Your task to perform on an android device: change the clock display to analog Image 0: 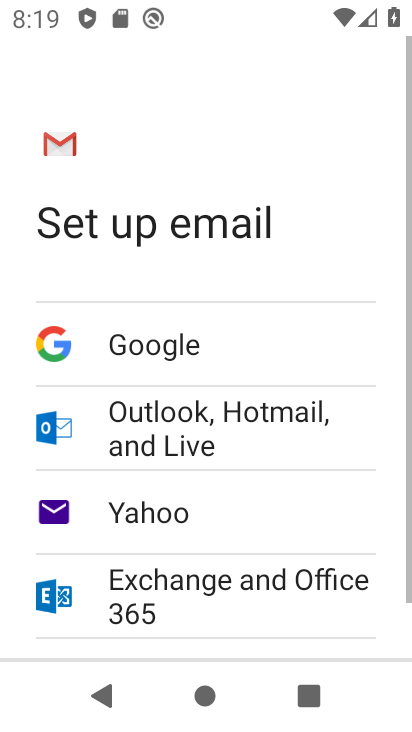
Step 0: press back button
Your task to perform on an android device: change the clock display to analog Image 1: 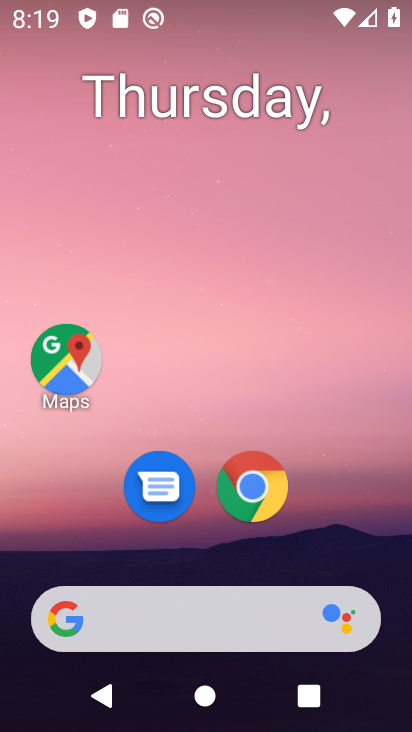
Step 1: drag from (131, 532) to (199, 4)
Your task to perform on an android device: change the clock display to analog Image 2: 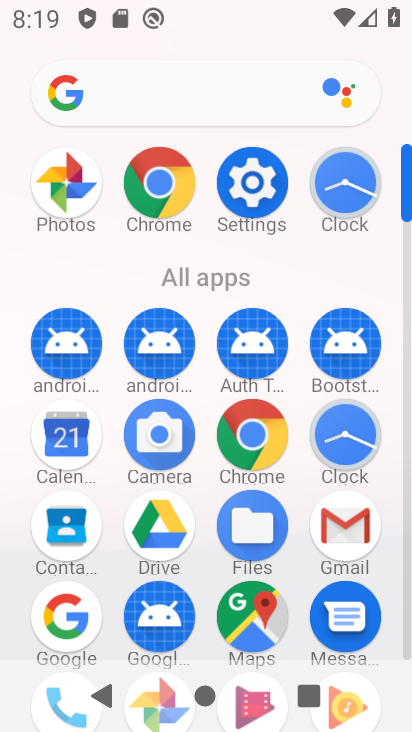
Step 2: click (352, 193)
Your task to perform on an android device: change the clock display to analog Image 3: 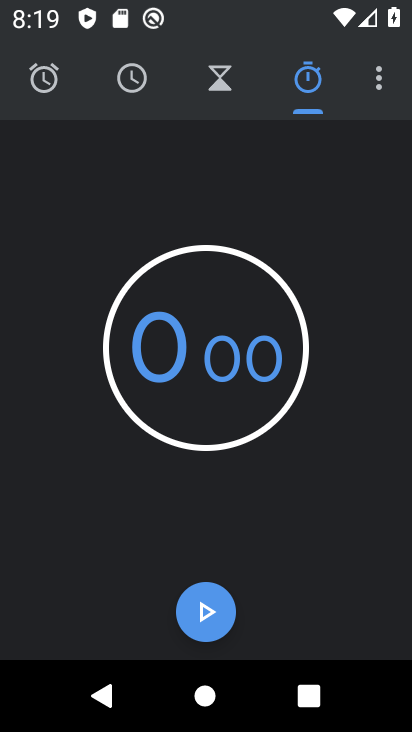
Step 3: click (381, 78)
Your task to perform on an android device: change the clock display to analog Image 4: 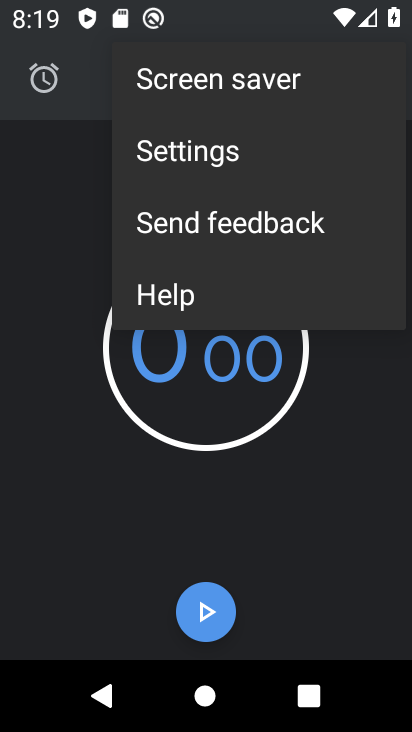
Step 4: click (186, 156)
Your task to perform on an android device: change the clock display to analog Image 5: 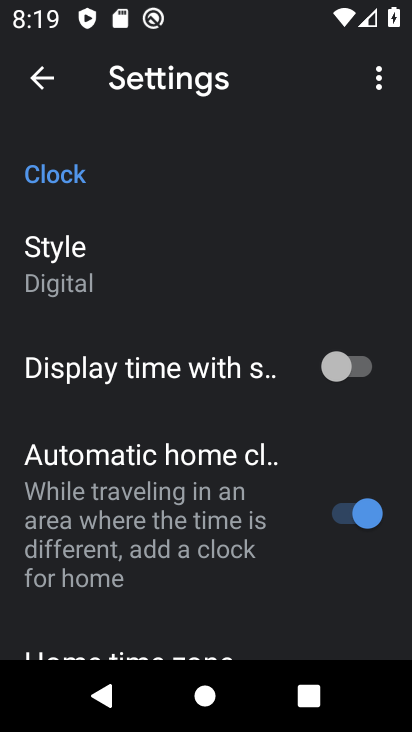
Step 5: click (60, 272)
Your task to perform on an android device: change the clock display to analog Image 6: 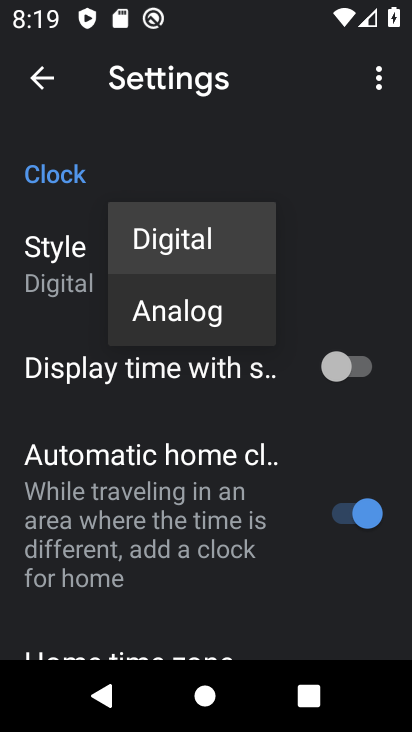
Step 6: click (163, 307)
Your task to perform on an android device: change the clock display to analog Image 7: 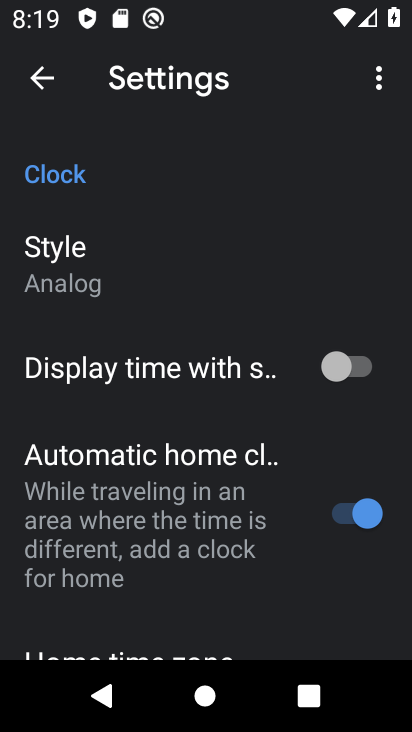
Step 7: task complete